Your task to perform on an android device: What's the weather today? Image 0: 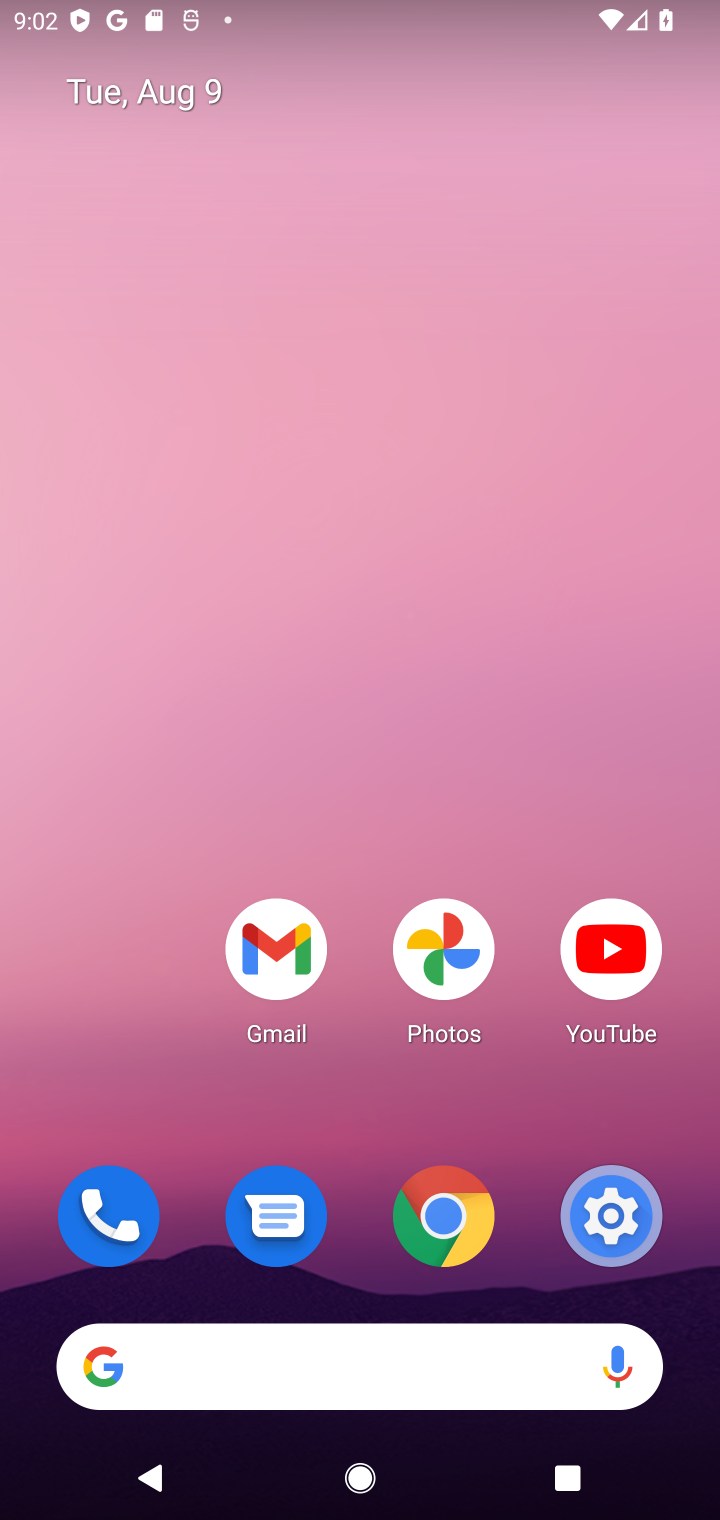
Step 0: drag from (373, 1341) to (421, 451)
Your task to perform on an android device: What's the weather today? Image 1: 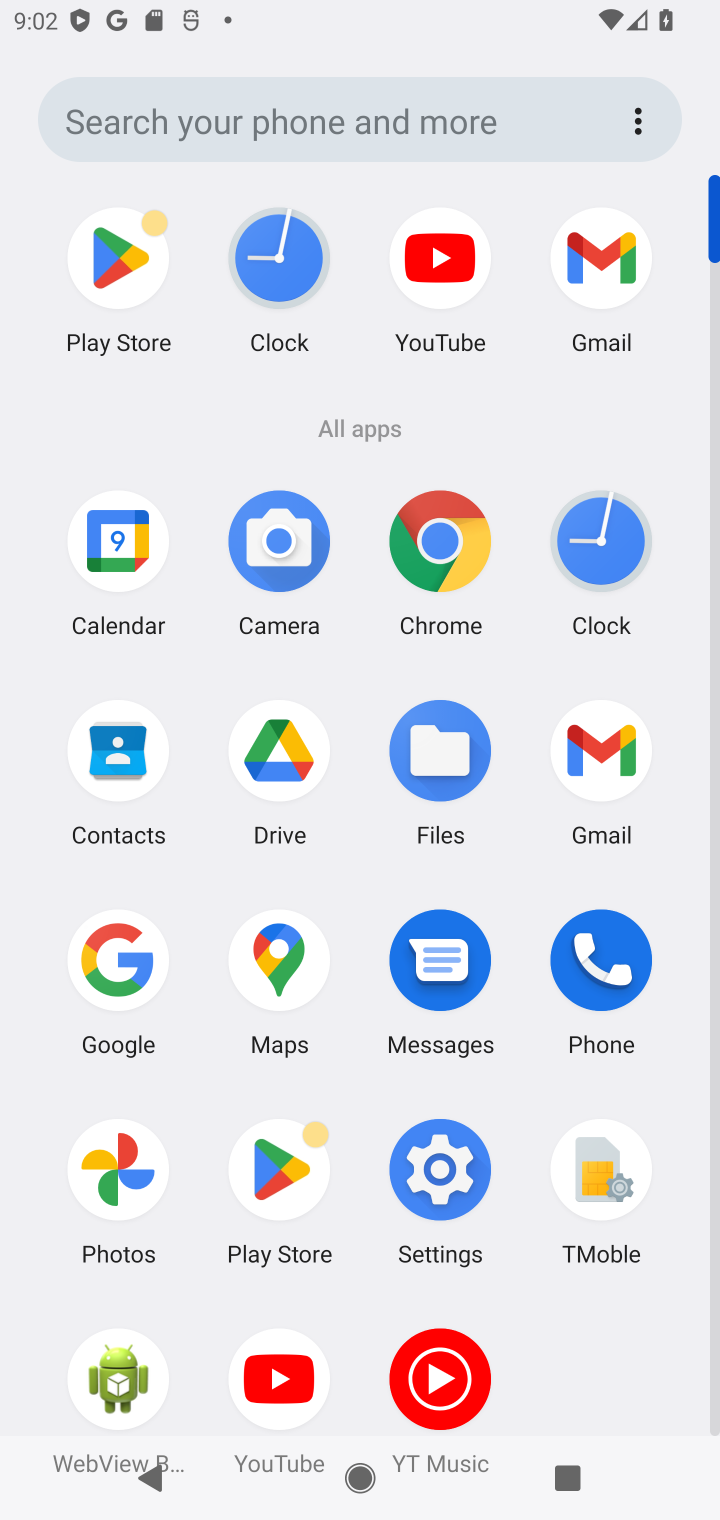
Step 1: click (125, 962)
Your task to perform on an android device: What's the weather today? Image 2: 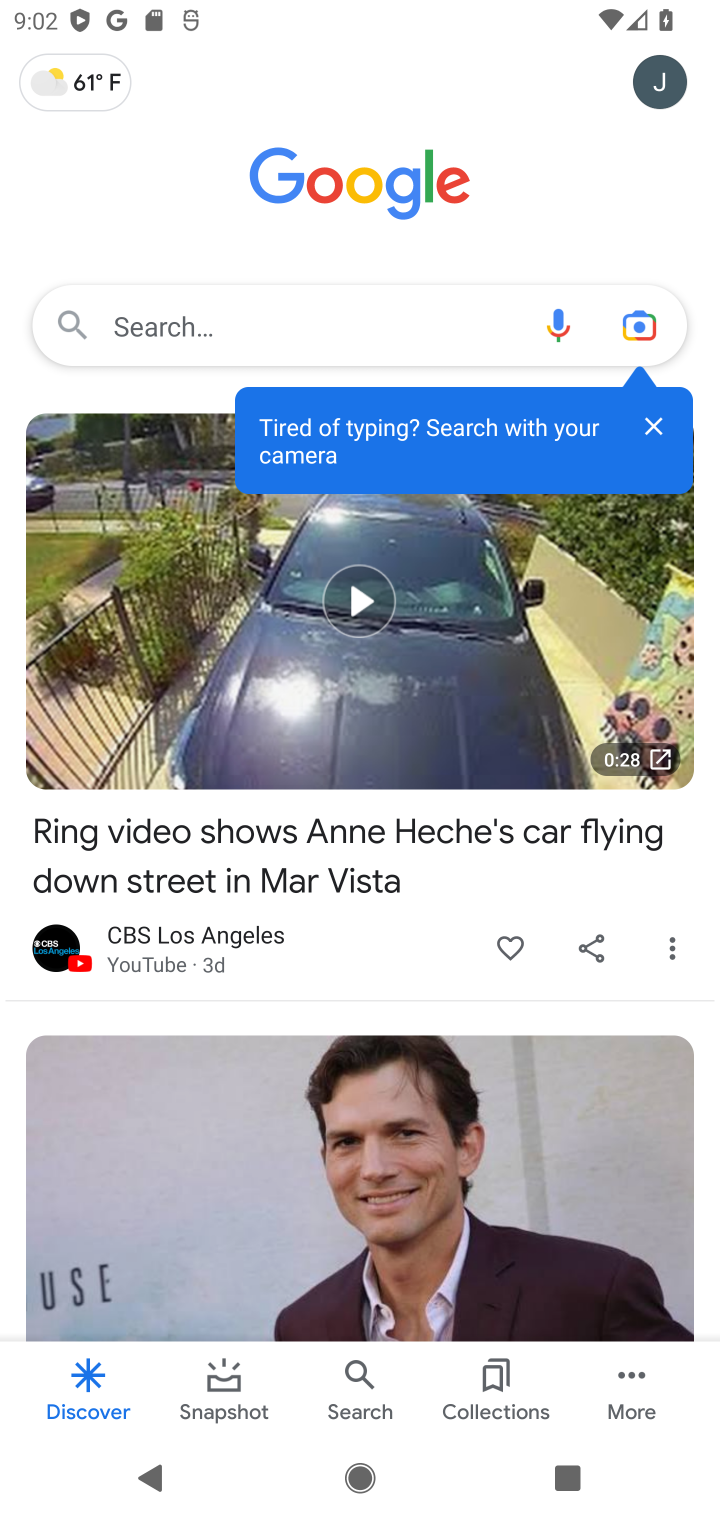
Step 2: drag from (251, 1114) to (189, 698)
Your task to perform on an android device: What's the weather today? Image 3: 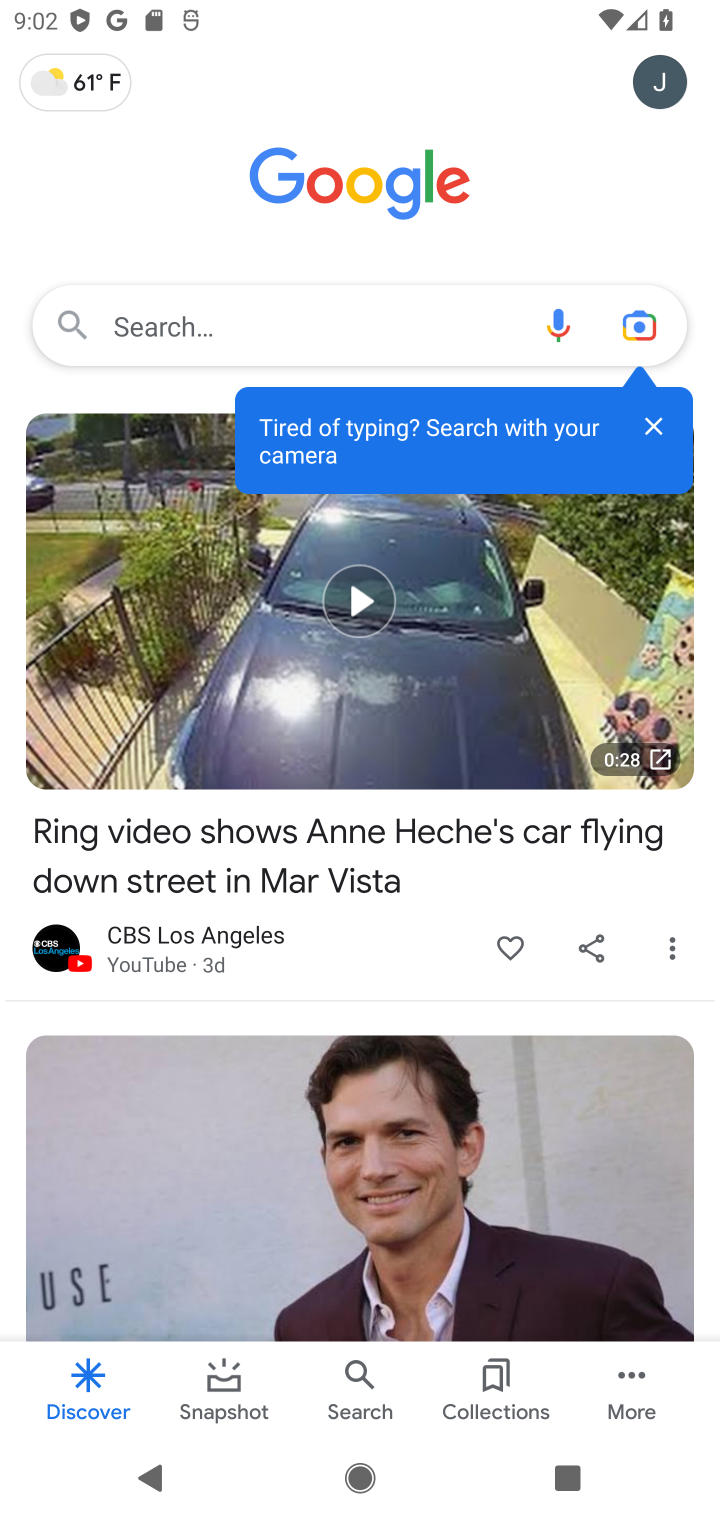
Step 3: click (200, 330)
Your task to perform on an android device: What's the weather today? Image 4: 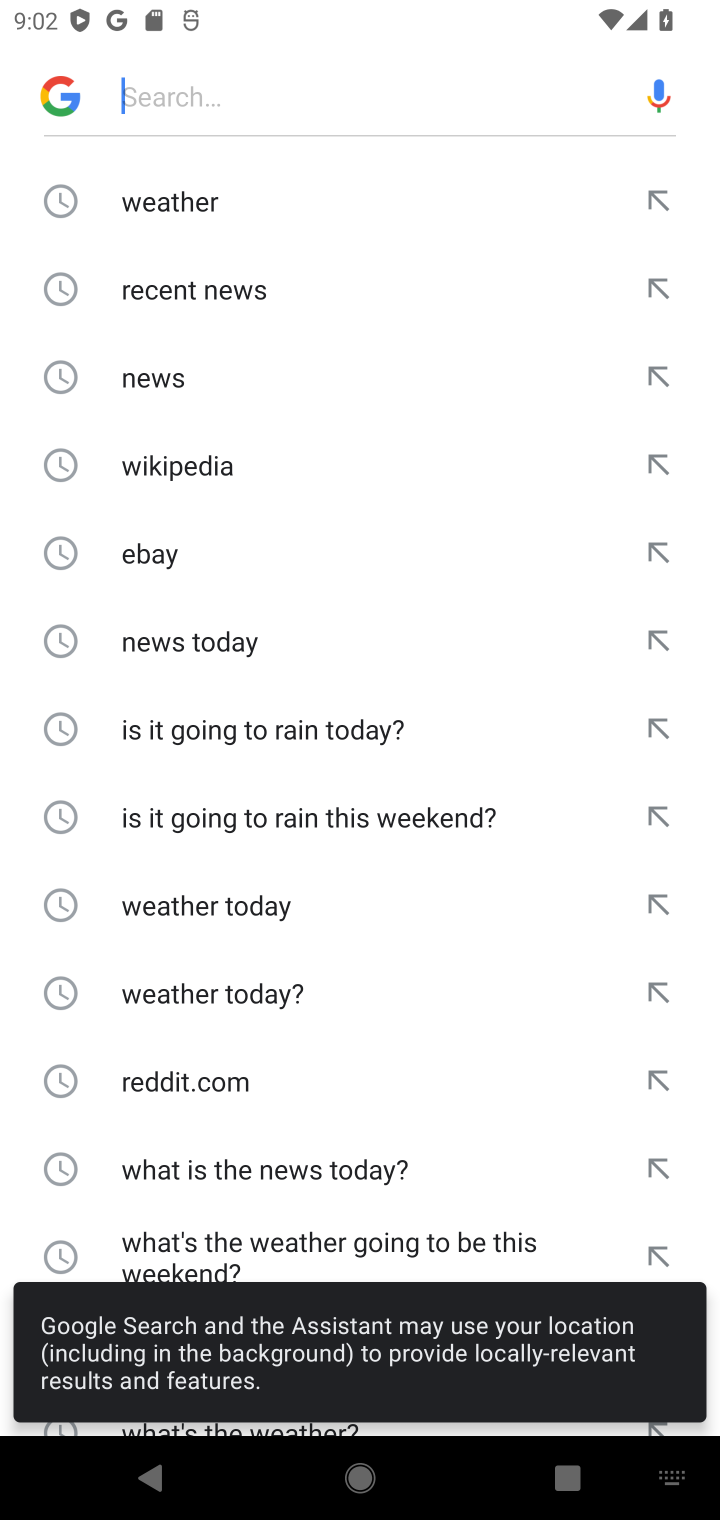
Step 4: click (191, 207)
Your task to perform on an android device: What's the weather today? Image 5: 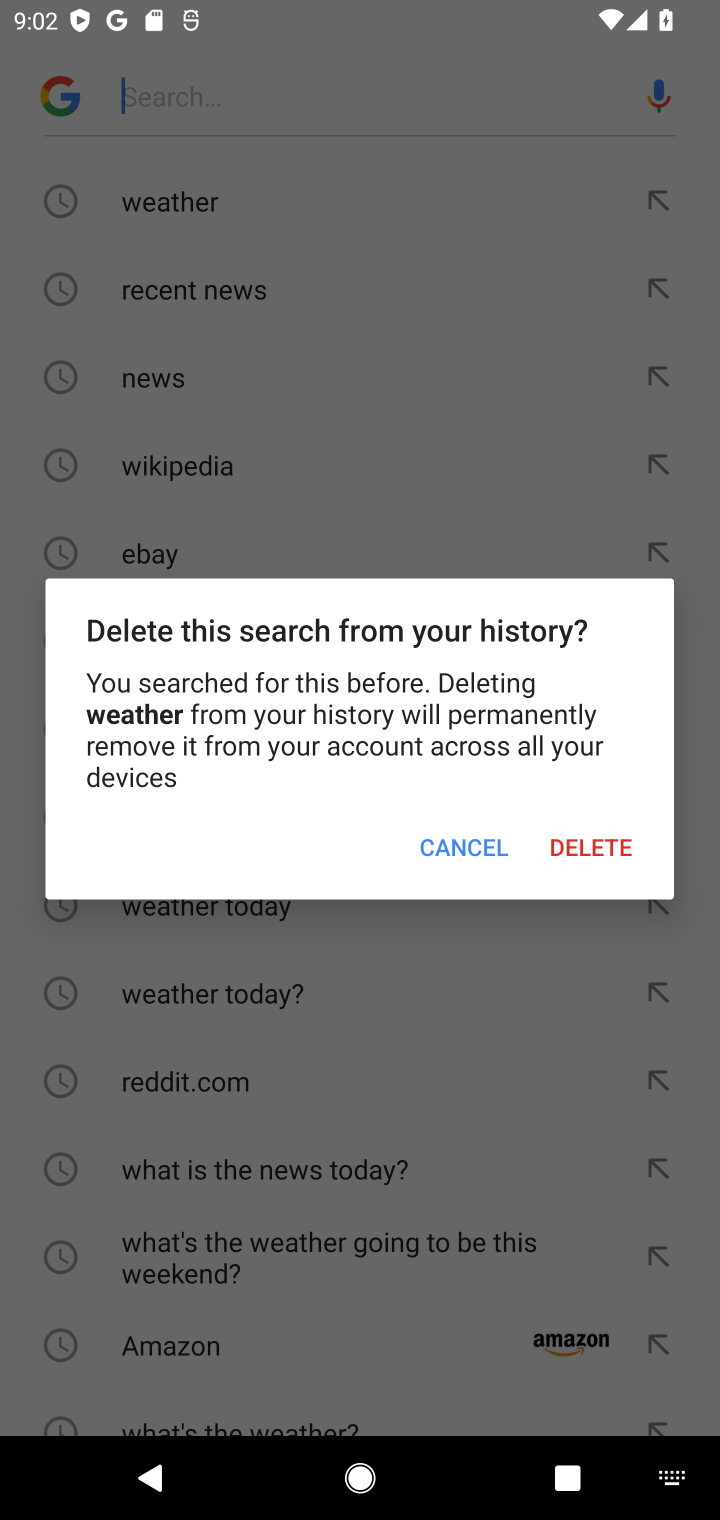
Step 5: click (466, 848)
Your task to perform on an android device: What's the weather today? Image 6: 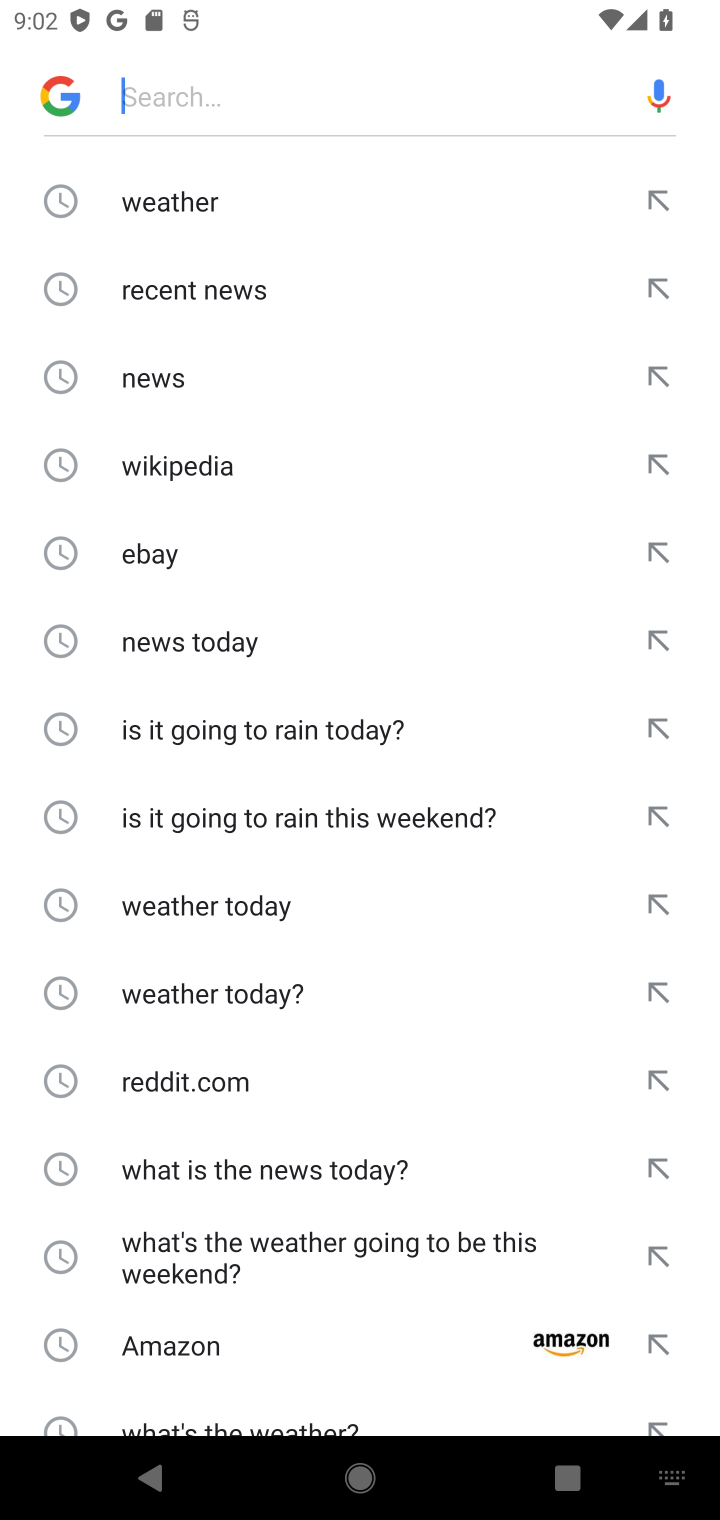
Step 6: click (145, 212)
Your task to perform on an android device: What's the weather today? Image 7: 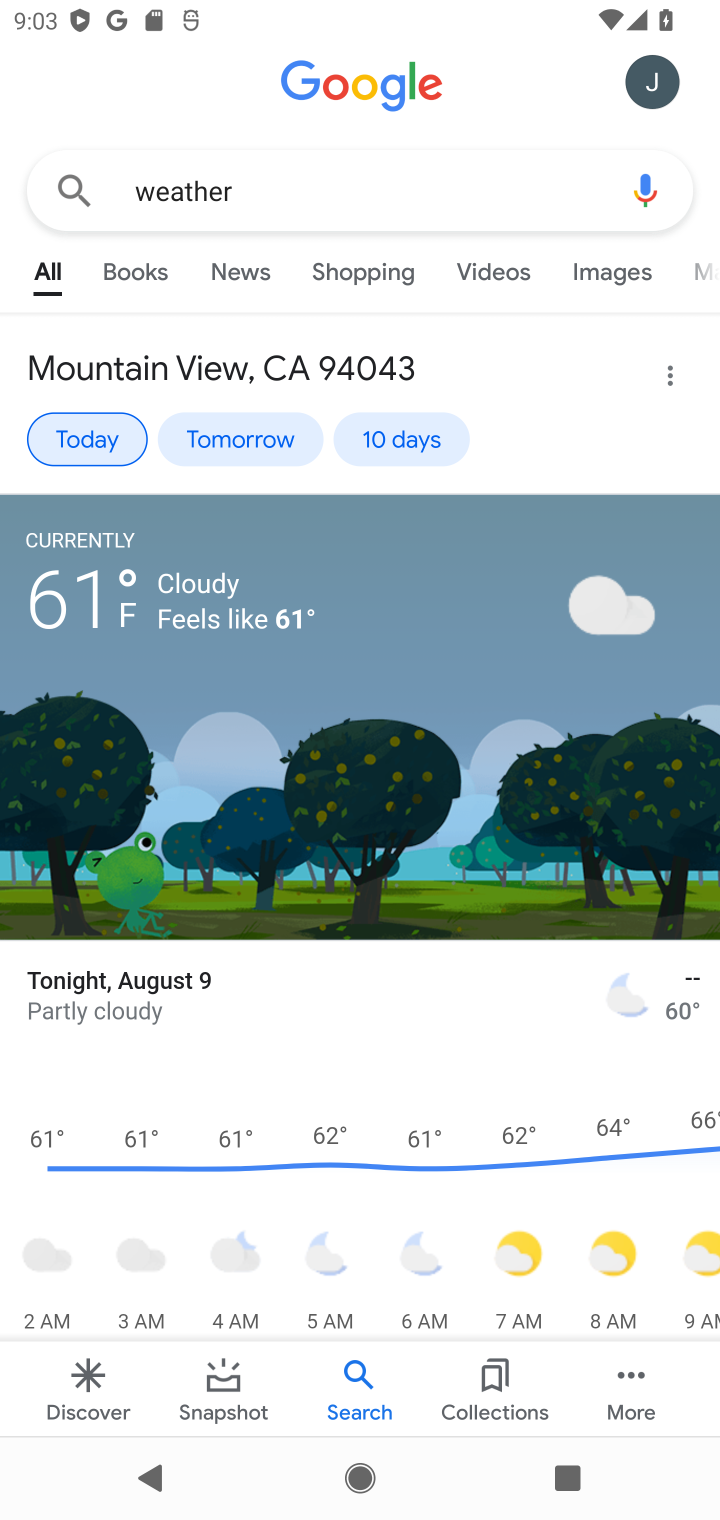
Step 7: task complete